Your task to perform on an android device: Go to Amazon Image 0: 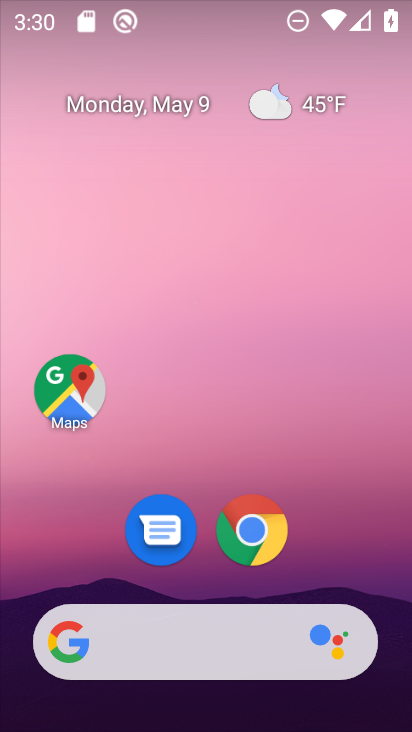
Step 0: drag from (359, 621) to (198, 0)
Your task to perform on an android device: Go to Amazon Image 1: 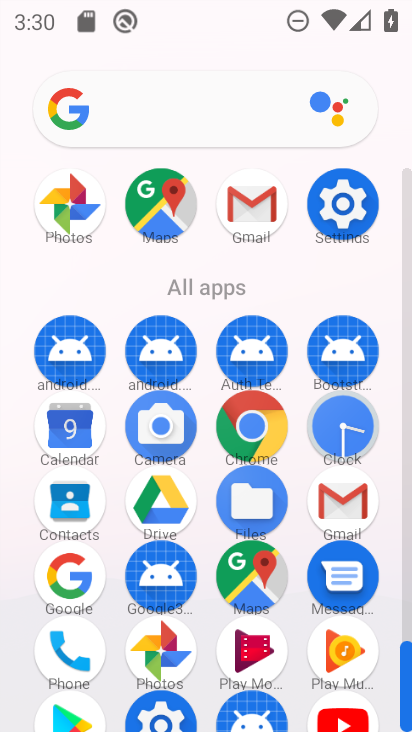
Step 1: click (244, 426)
Your task to perform on an android device: Go to Amazon Image 2: 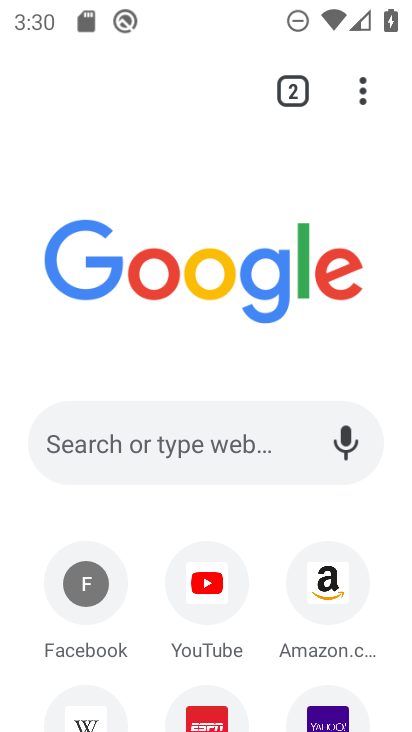
Step 2: click (325, 589)
Your task to perform on an android device: Go to Amazon Image 3: 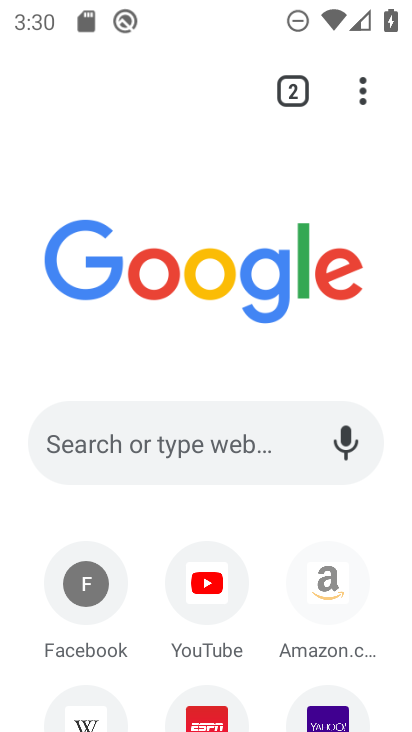
Step 3: click (325, 589)
Your task to perform on an android device: Go to Amazon Image 4: 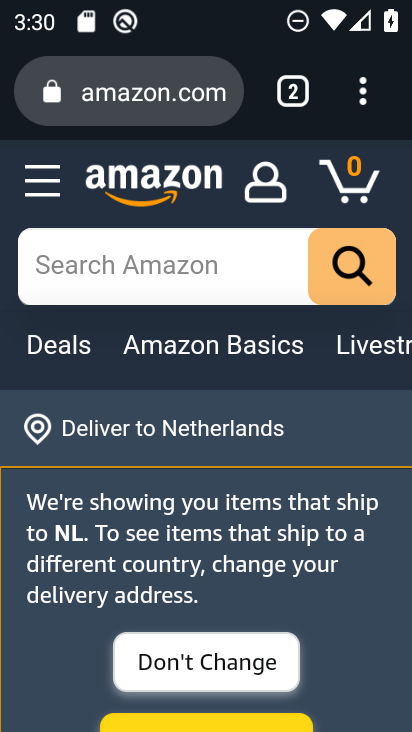
Step 4: task complete